Your task to perform on an android device: Open Youtube and go to the subscriptions tab Image 0: 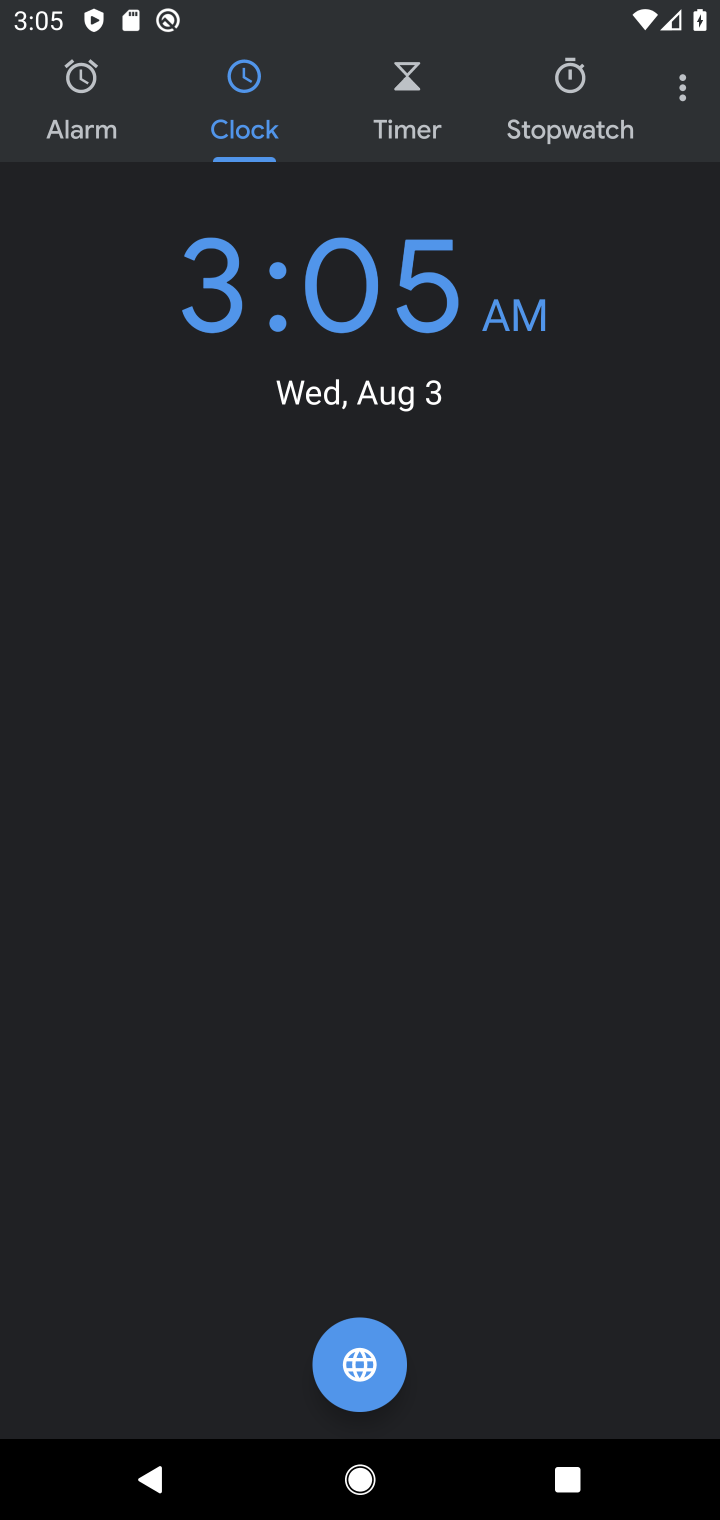
Step 0: press home button
Your task to perform on an android device: Open Youtube and go to the subscriptions tab Image 1: 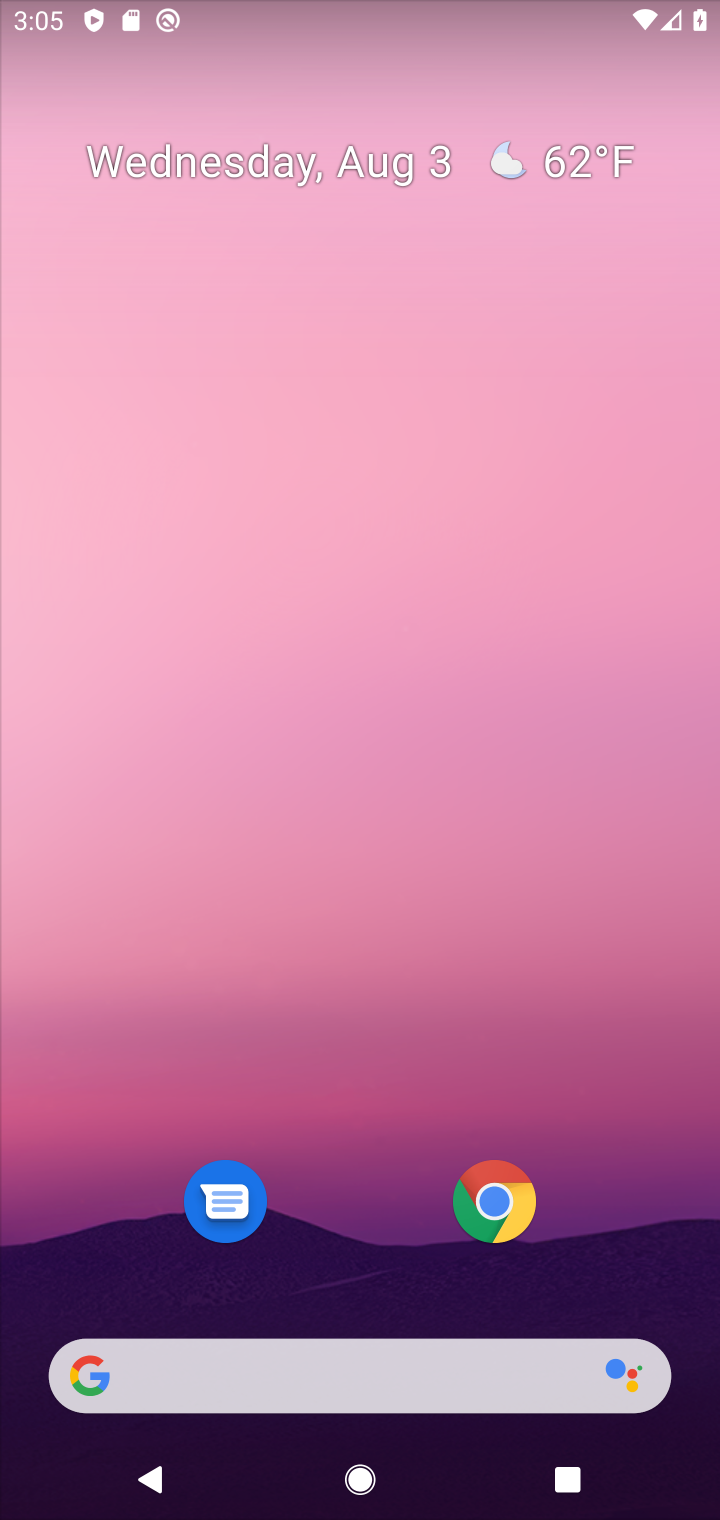
Step 1: drag from (360, 1238) to (411, 27)
Your task to perform on an android device: Open Youtube and go to the subscriptions tab Image 2: 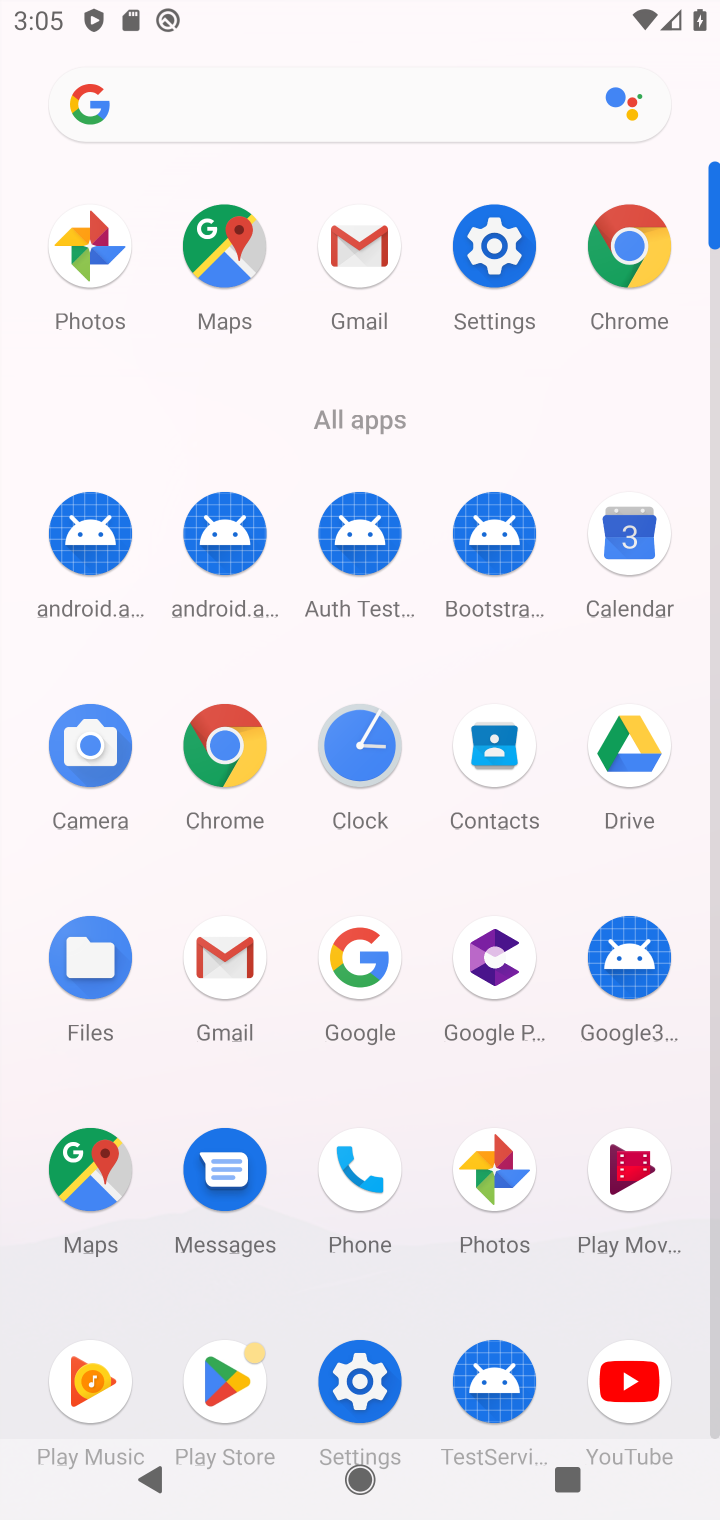
Step 2: click (639, 1375)
Your task to perform on an android device: Open Youtube and go to the subscriptions tab Image 3: 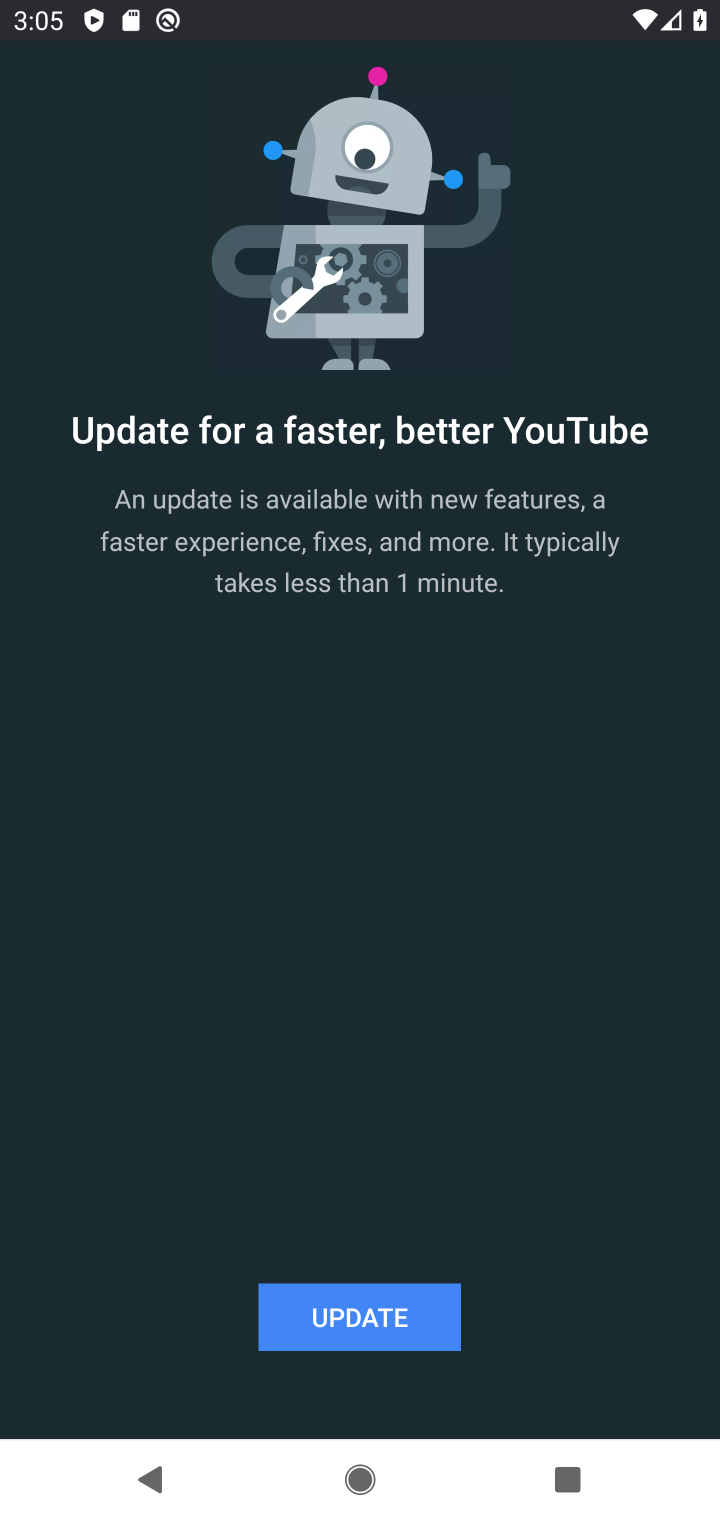
Step 3: click (405, 1319)
Your task to perform on an android device: Open Youtube and go to the subscriptions tab Image 4: 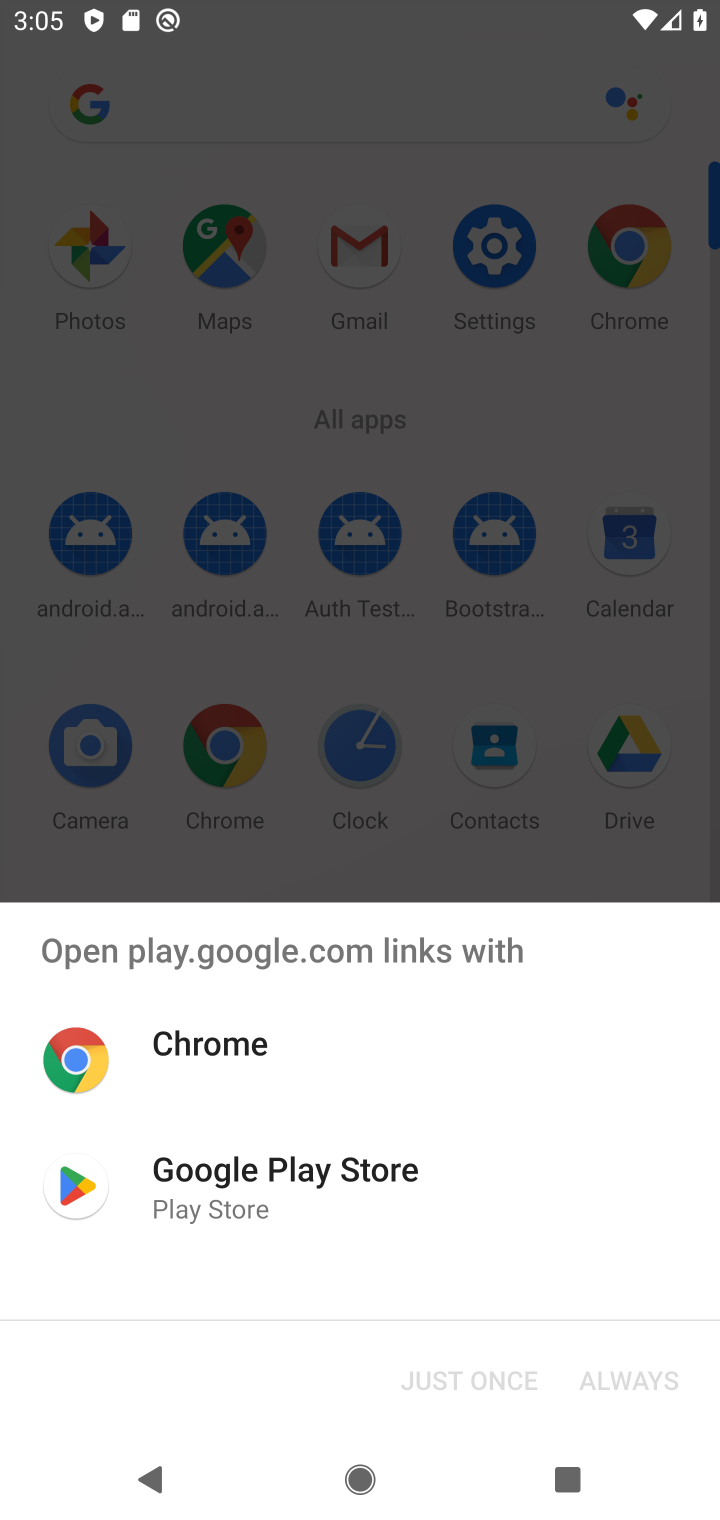
Step 4: click (226, 1205)
Your task to perform on an android device: Open Youtube and go to the subscriptions tab Image 5: 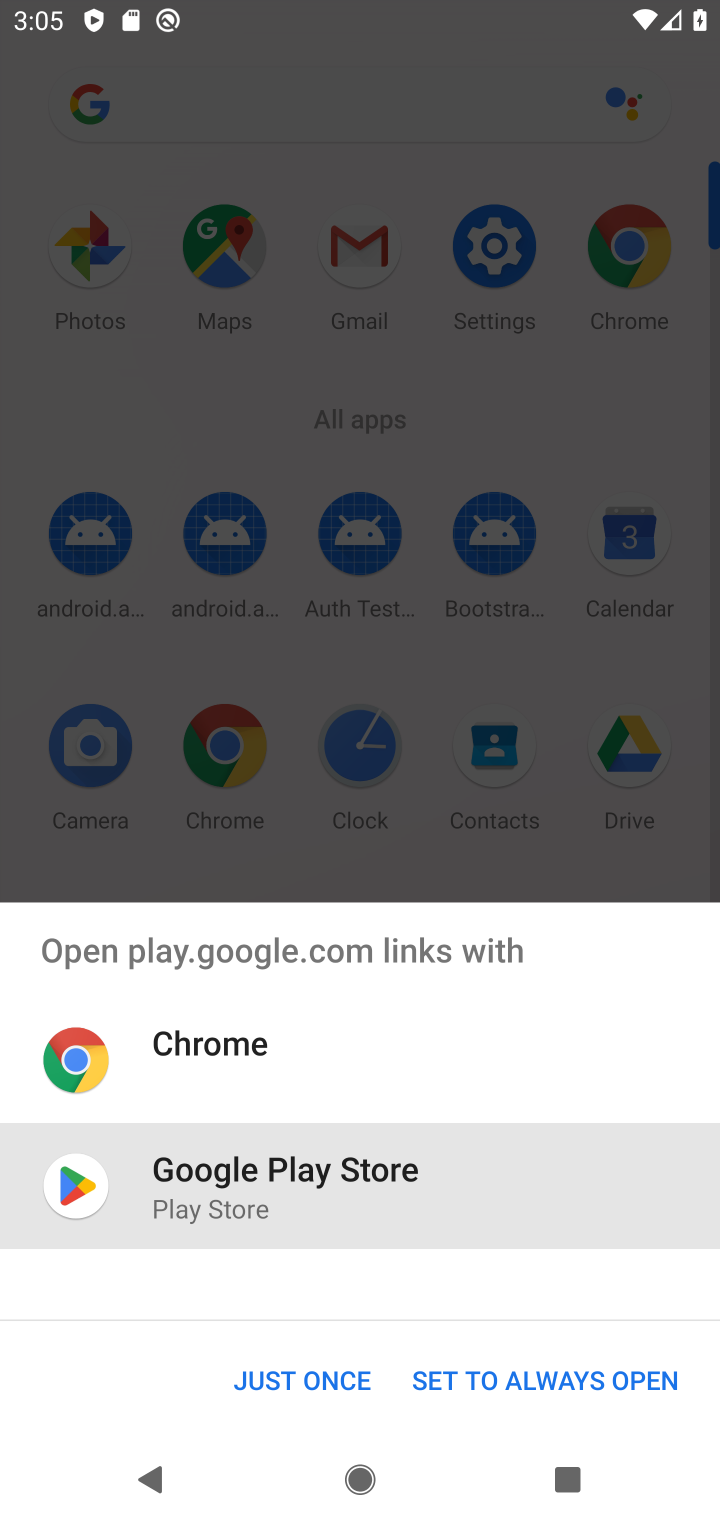
Step 5: click (331, 1379)
Your task to perform on an android device: Open Youtube and go to the subscriptions tab Image 6: 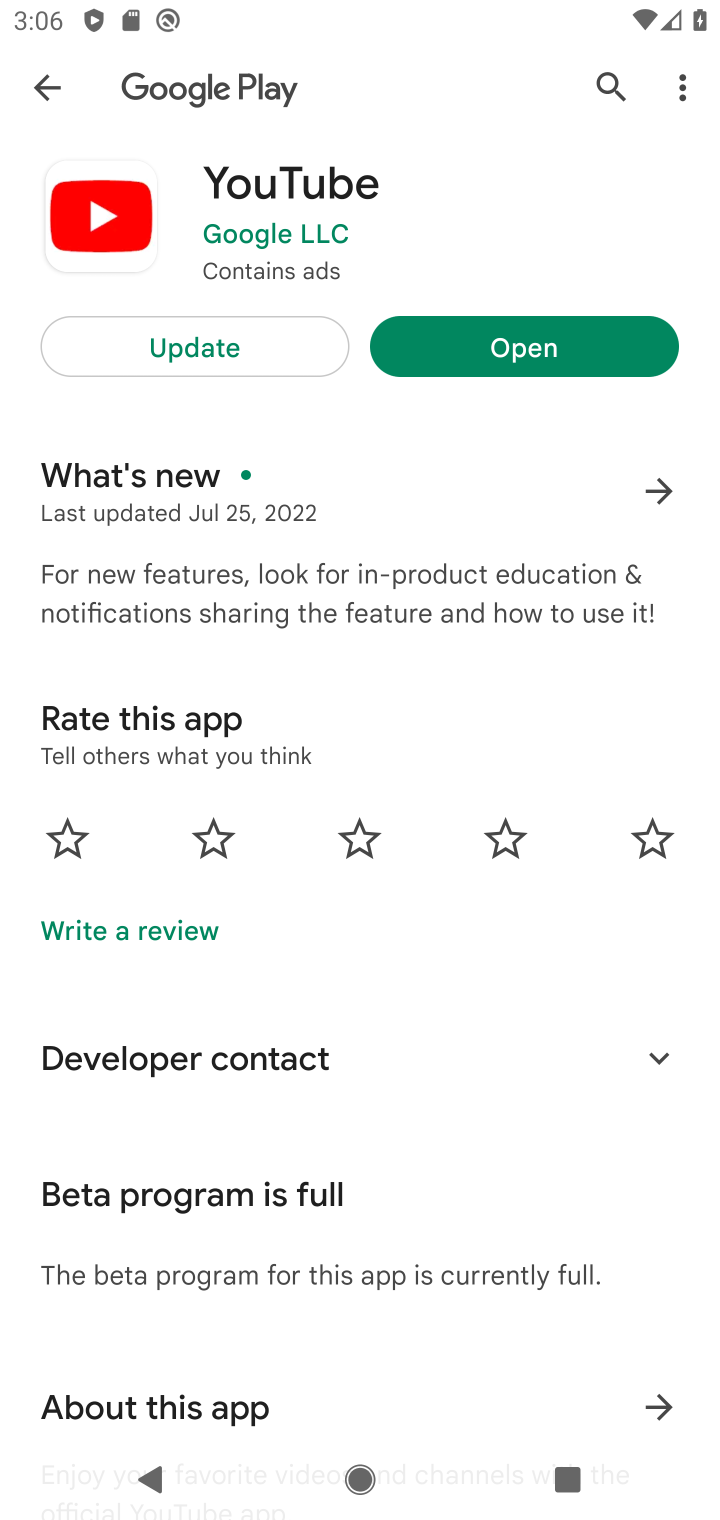
Step 6: click (279, 352)
Your task to perform on an android device: Open Youtube and go to the subscriptions tab Image 7: 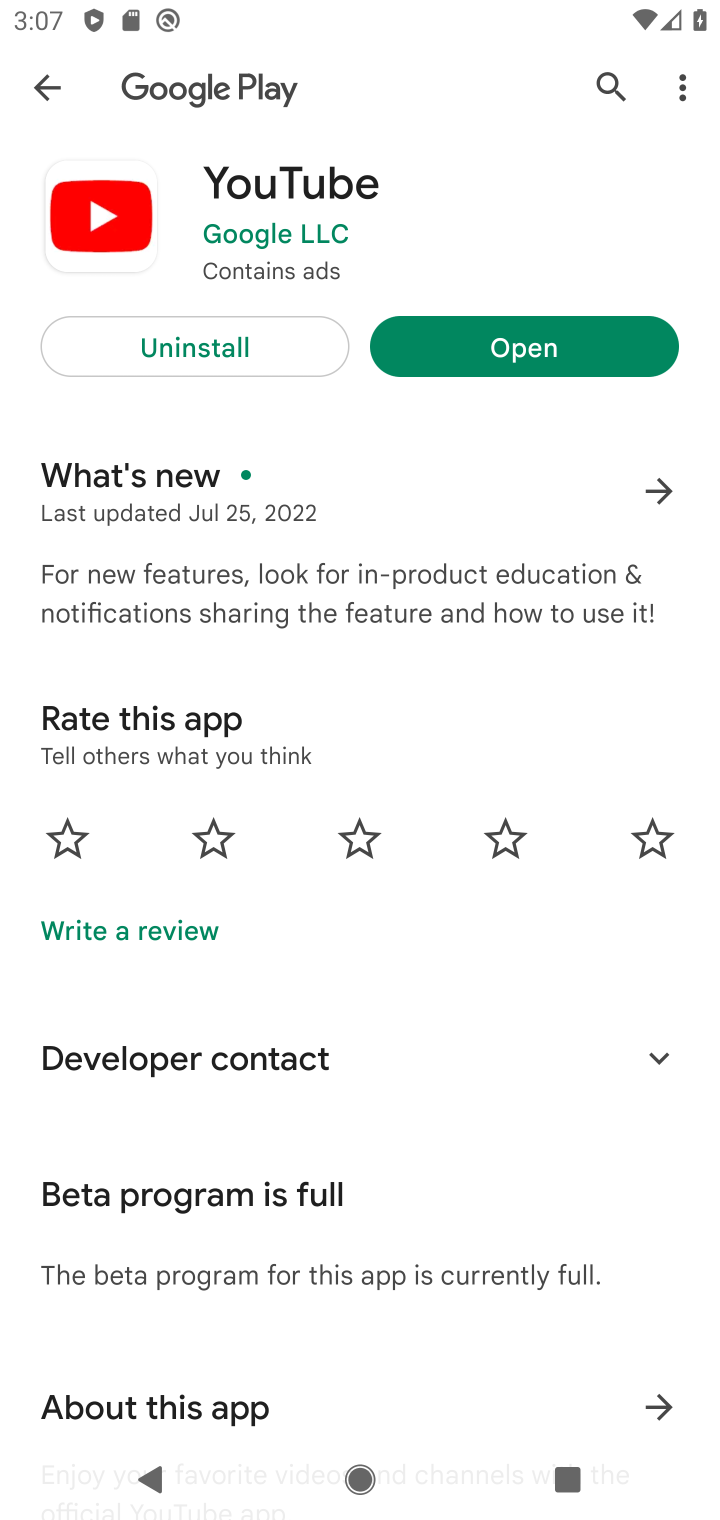
Step 7: click (605, 363)
Your task to perform on an android device: Open Youtube and go to the subscriptions tab Image 8: 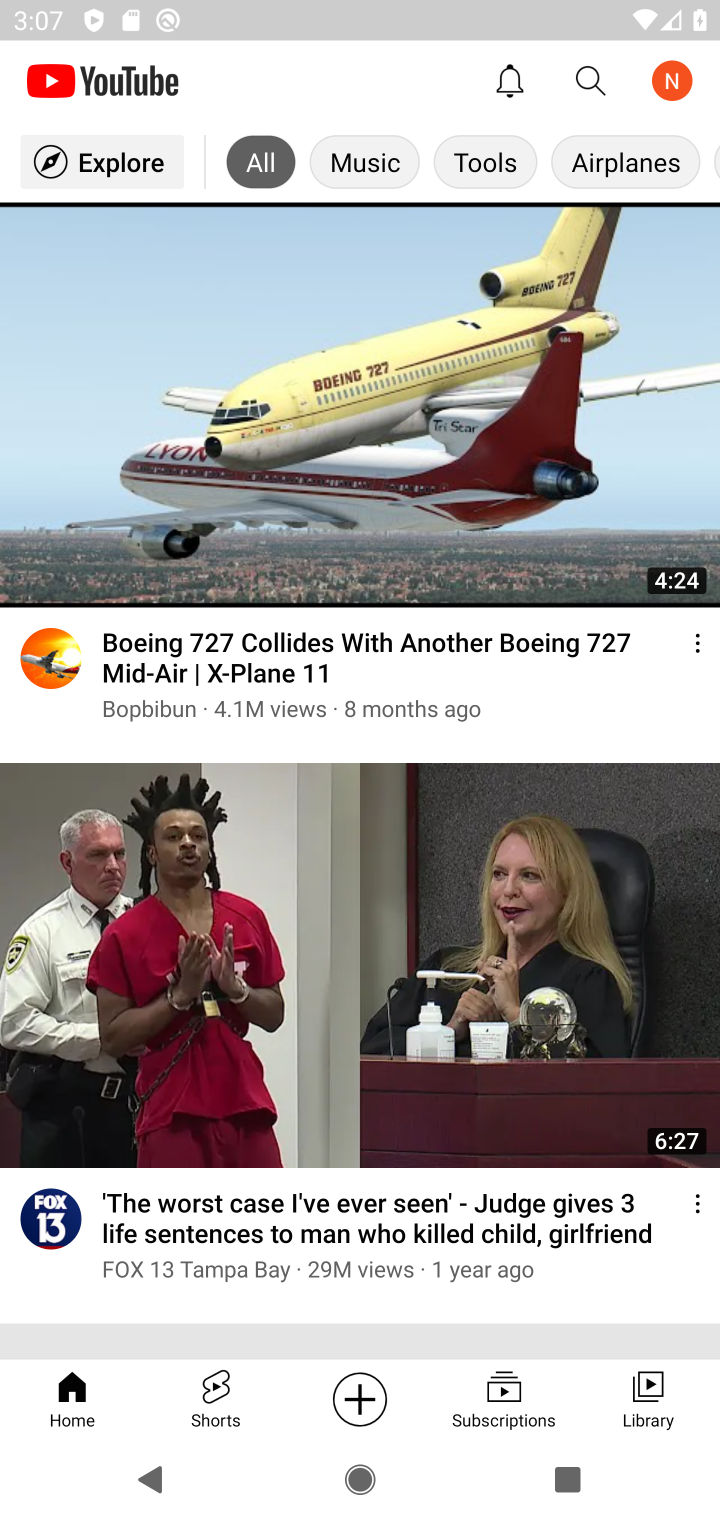
Step 8: click (506, 1413)
Your task to perform on an android device: Open Youtube and go to the subscriptions tab Image 9: 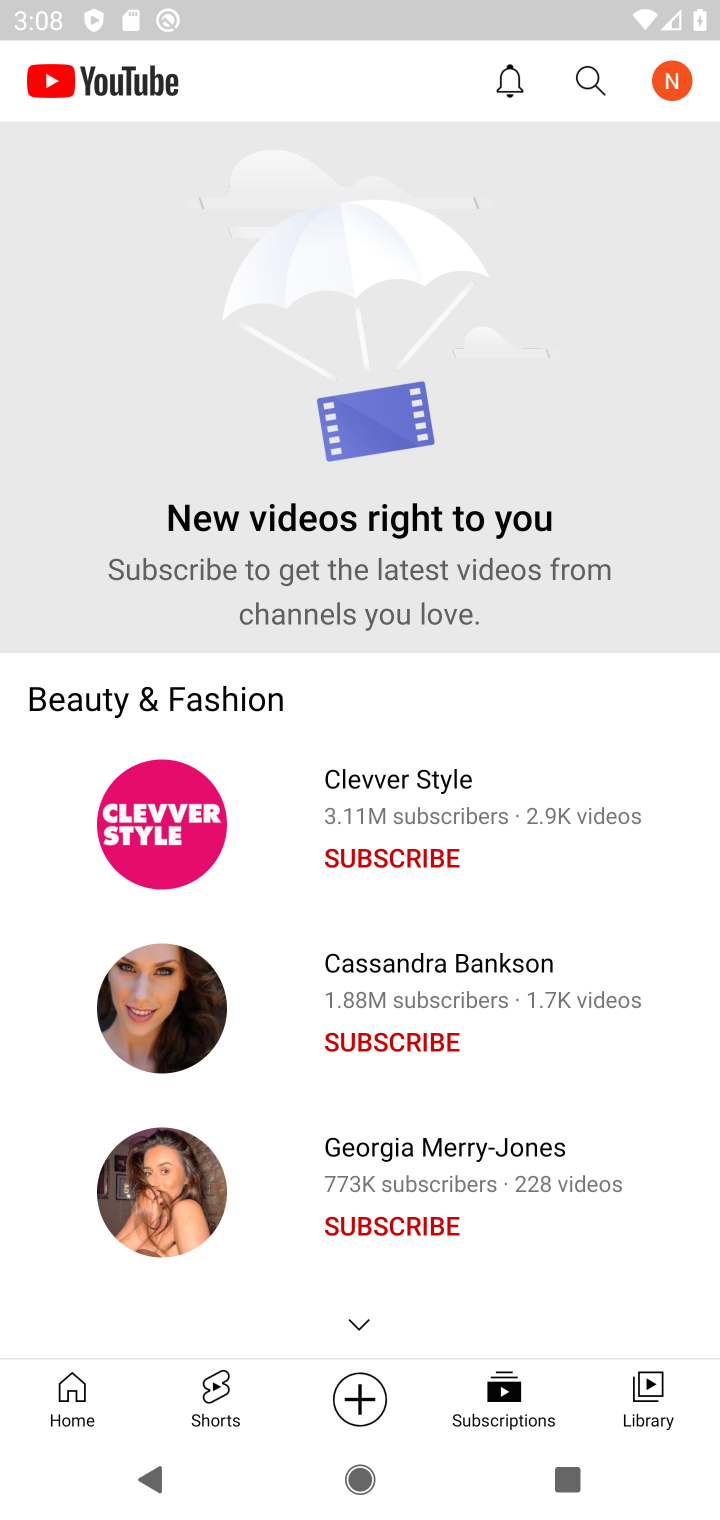
Step 9: task complete